Your task to perform on an android device: turn off notifications in google photos Image 0: 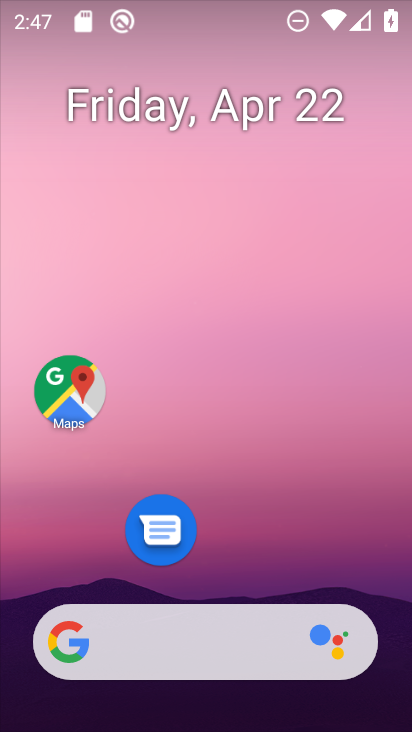
Step 0: drag from (274, 580) to (228, 105)
Your task to perform on an android device: turn off notifications in google photos Image 1: 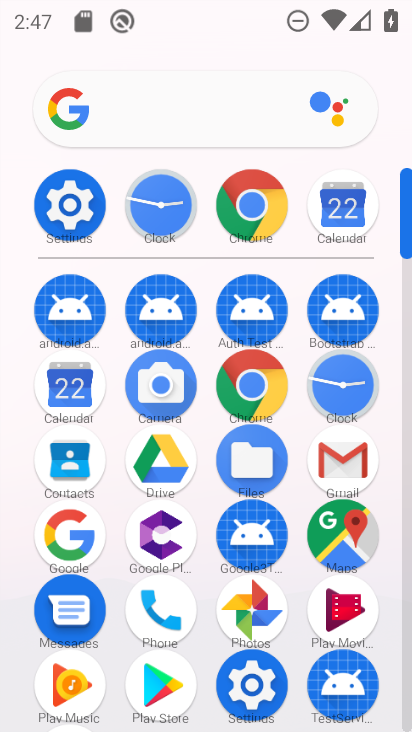
Step 1: click (251, 608)
Your task to perform on an android device: turn off notifications in google photos Image 2: 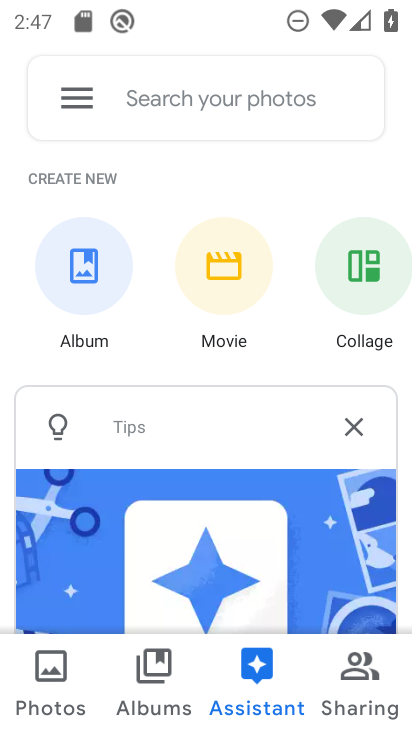
Step 2: click (73, 102)
Your task to perform on an android device: turn off notifications in google photos Image 3: 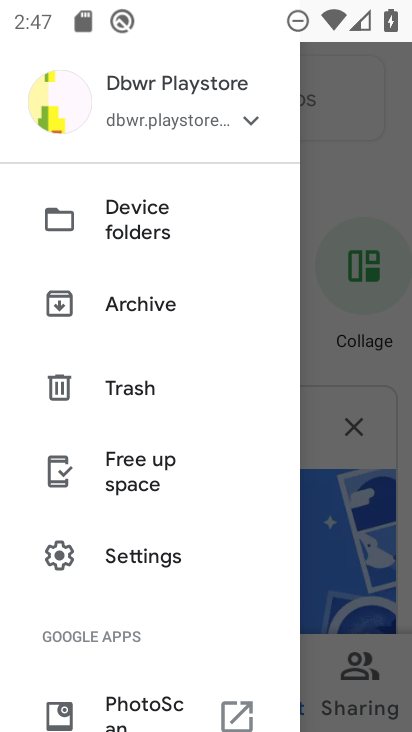
Step 3: click (134, 557)
Your task to perform on an android device: turn off notifications in google photos Image 4: 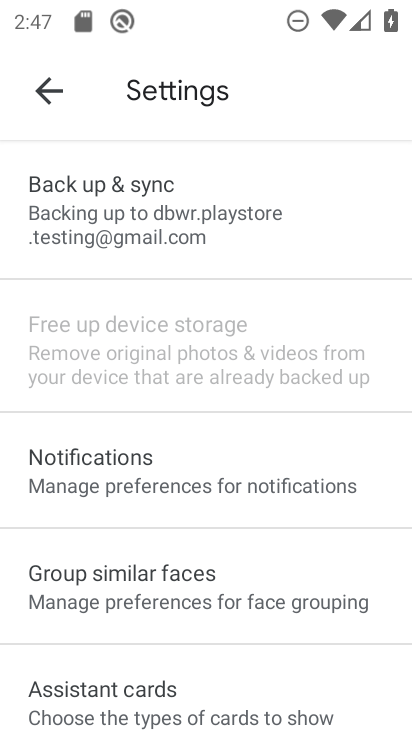
Step 4: drag from (136, 481) to (141, 297)
Your task to perform on an android device: turn off notifications in google photos Image 5: 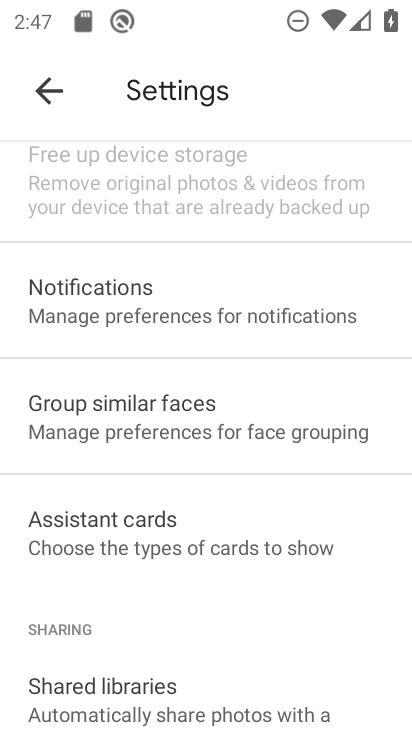
Step 5: click (102, 284)
Your task to perform on an android device: turn off notifications in google photos Image 6: 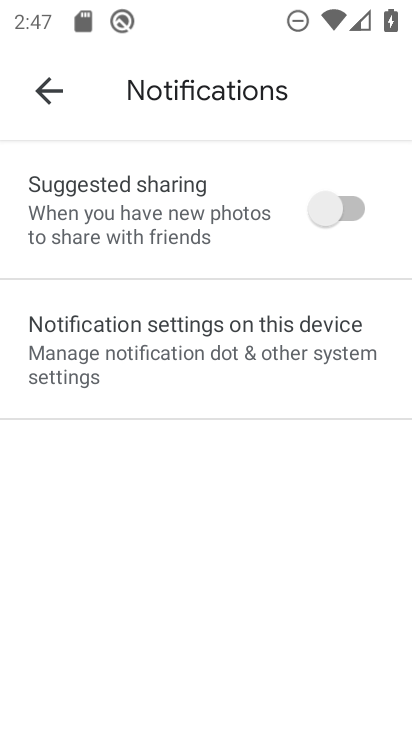
Step 6: click (186, 339)
Your task to perform on an android device: turn off notifications in google photos Image 7: 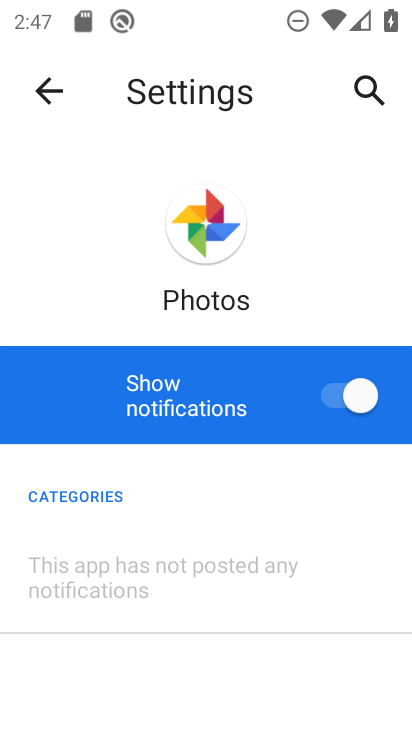
Step 7: click (352, 402)
Your task to perform on an android device: turn off notifications in google photos Image 8: 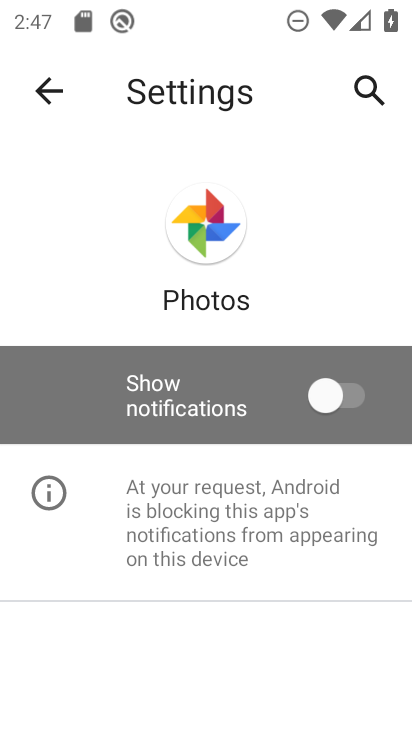
Step 8: task complete